Your task to perform on an android device: Open ESPN.com Image 0: 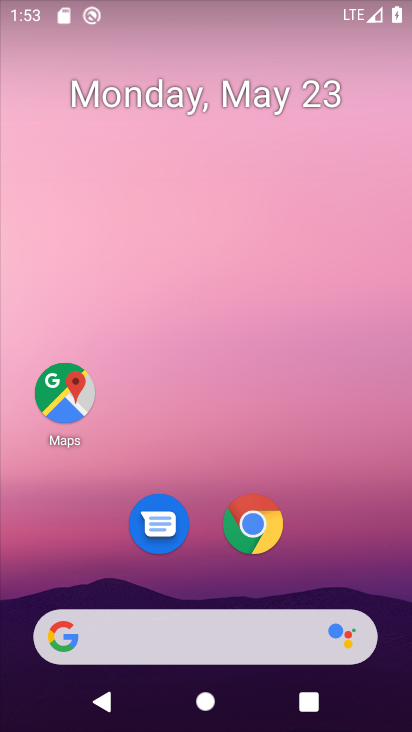
Step 0: click (297, 641)
Your task to perform on an android device: Open ESPN.com Image 1: 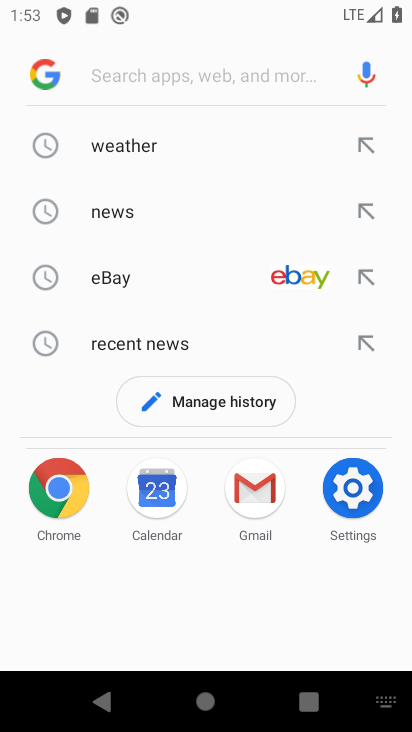
Step 1: type "espn.com"
Your task to perform on an android device: Open ESPN.com Image 2: 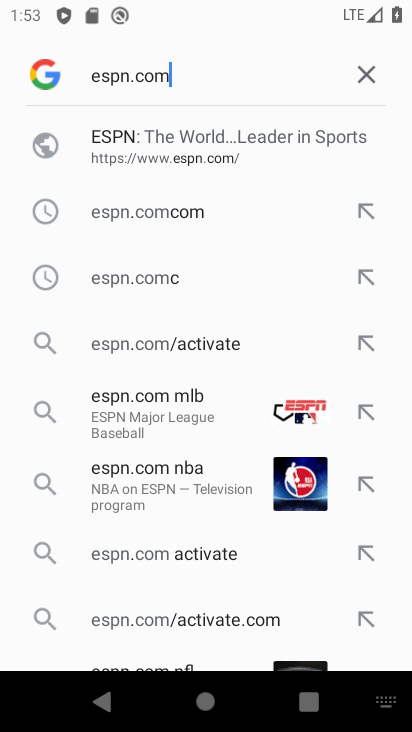
Step 2: click (100, 140)
Your task to perform on an android device: Open ESPN.com Image 3: 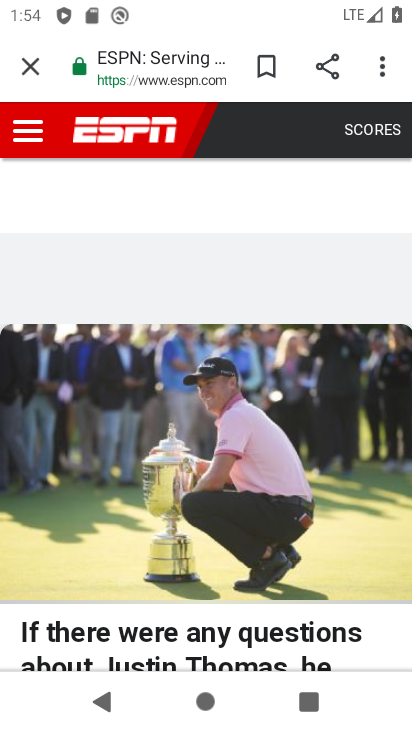
Step 3: task complete